Your task to perform on an android device: toggle wifi Image 0: 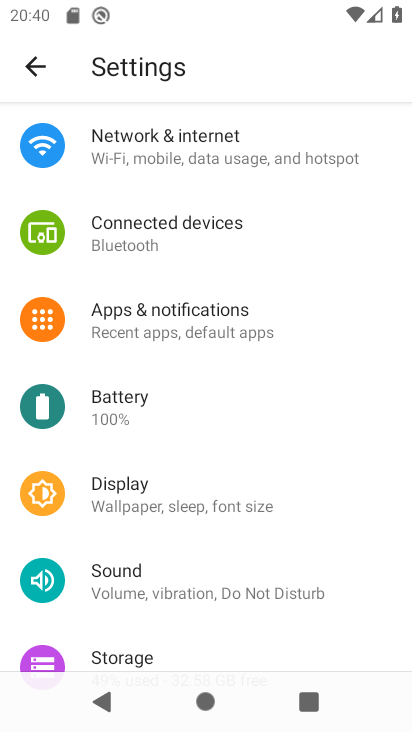
Step 0: click (231, 151)
Your task to perform on an android device: toggle wifi Image 1: 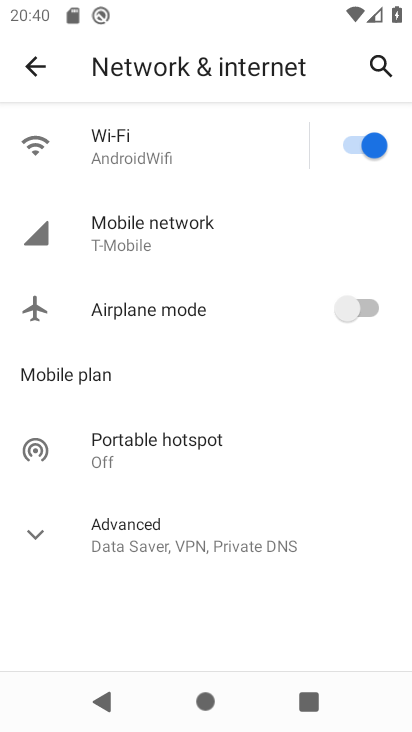
Step 1: click (353, 136)
Your task to perform on an android device: toggle wifi Image 2: 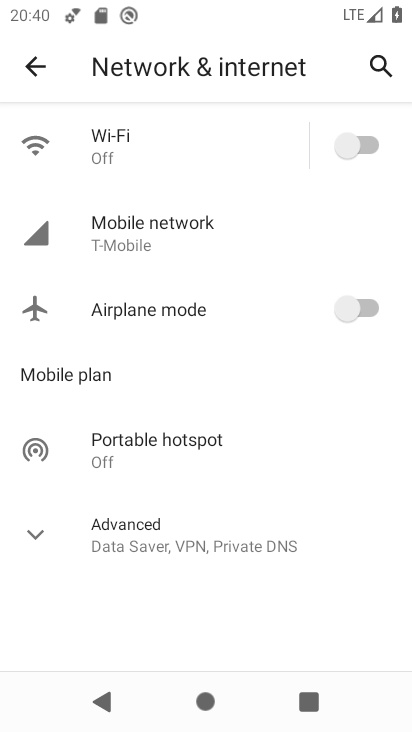
Step 2: task complete